Your task to perform on an android device: star an email in the gmail app Image 0: 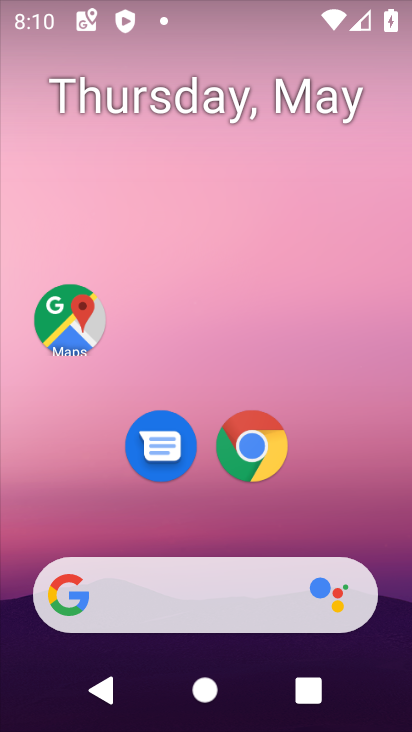
Step 0: drag from (353, 471) to (375, 168)
Your task to perform on an android device: star an email in the gmail app Image 1: 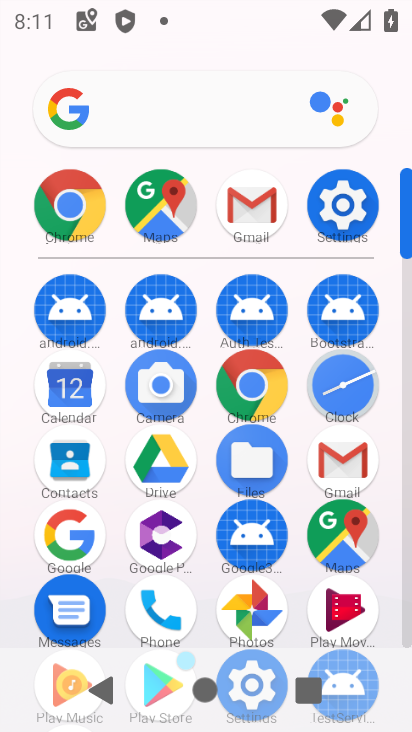
Step 1: click (326, 465)
Your task to perform on an android device: star an email in the gmail app Image 2: 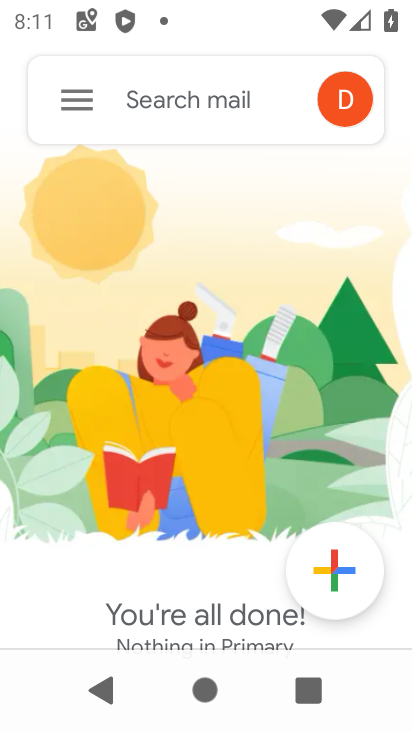
Step 2: click (89, 100)
Your task to perform on an android device: star an email in the gmail app Image 3: 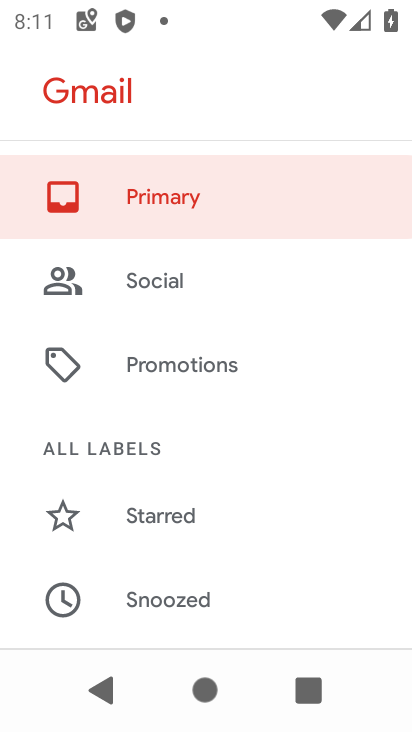
Step 3: drag from (224, 503) to (264, 242)
Your task to perform on an android device: star an email in the gmail app Image 4: 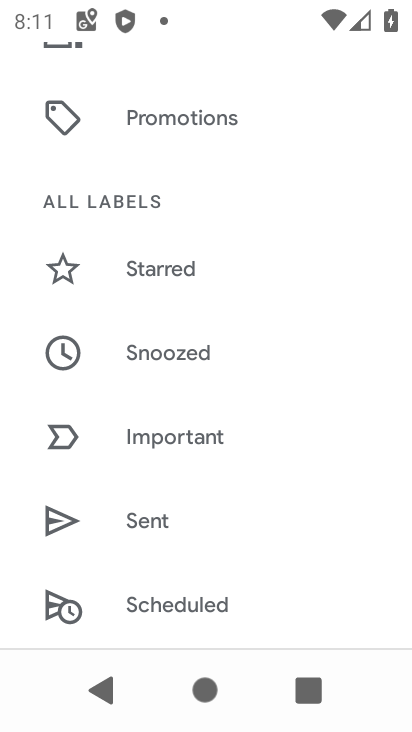
Step 4: drag from (246, 546) to (256, 389)
Your task to perform on an android device: star an email in the gmail app Image 5: 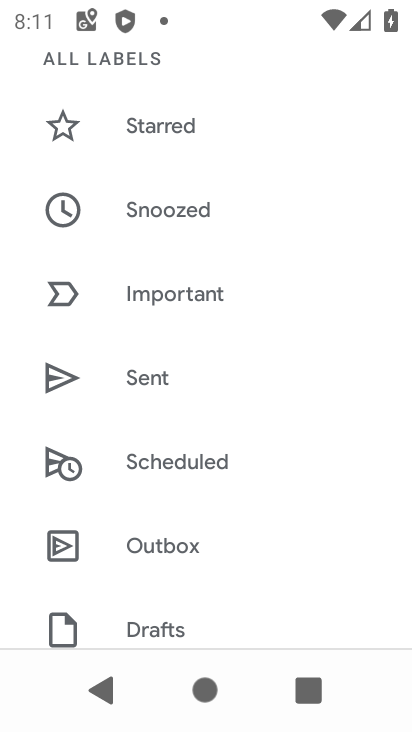
Step 5: drag from (208, 605) to (259, 207)
Your task to perform on an android device: star an email in the gmail app Image 6: 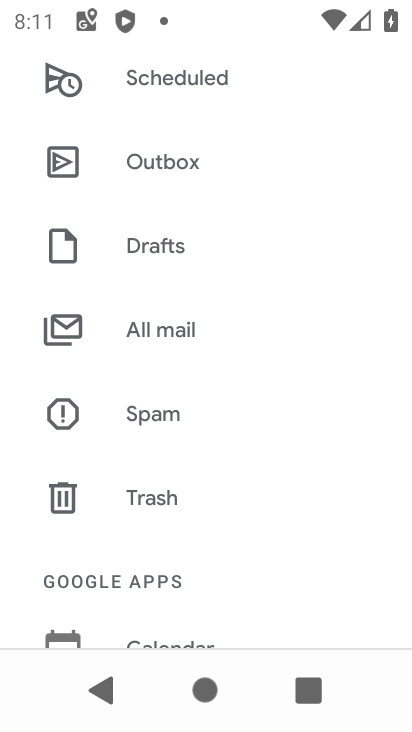
Step 6: click (173, 324)
Your task to perform on an android device: star an email in the gmail app Image 7: 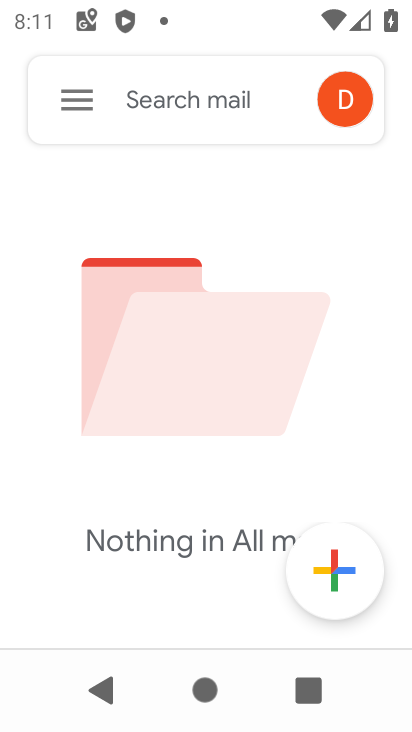
Step 7: task complete